Your task to perform on an android device: change alarm snooze length Image 0: 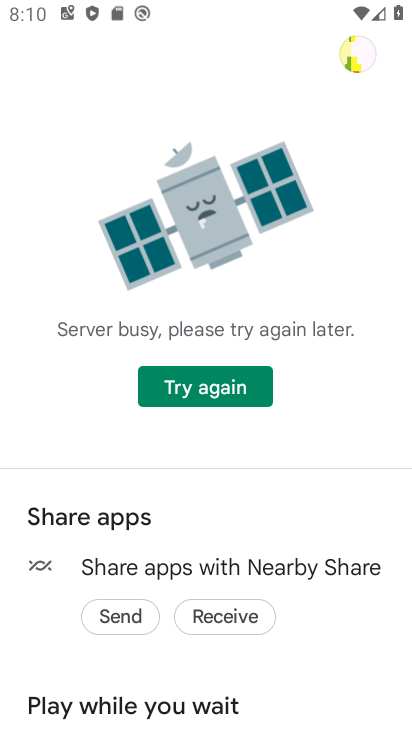
Step 0: press home button
Your task to perform on an android device: change alarm snooze length Image 1: 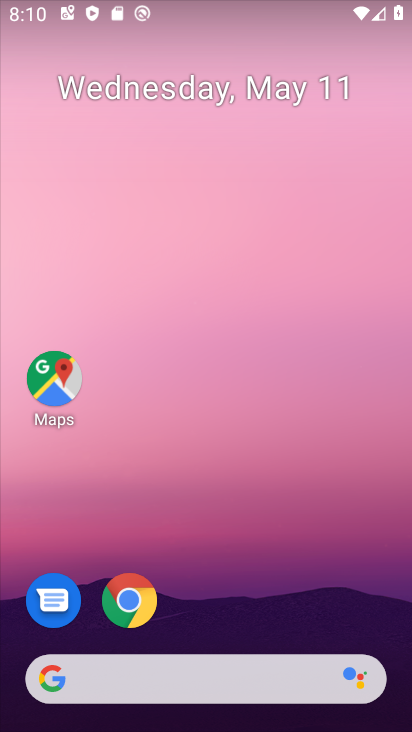
Step 1: drag from (206, 549) to (219, 23)
Your task to perform on an android device: change alarm snooze length Image 2: 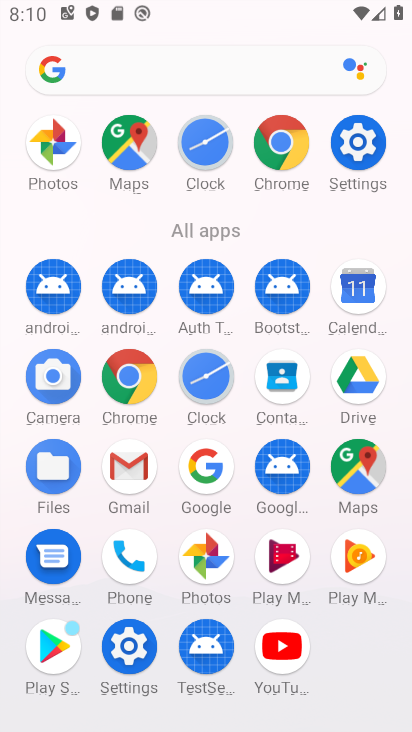
Step 2: click (205, 376)
Your task to perform on an android device: change alarm snooze length Image 3: 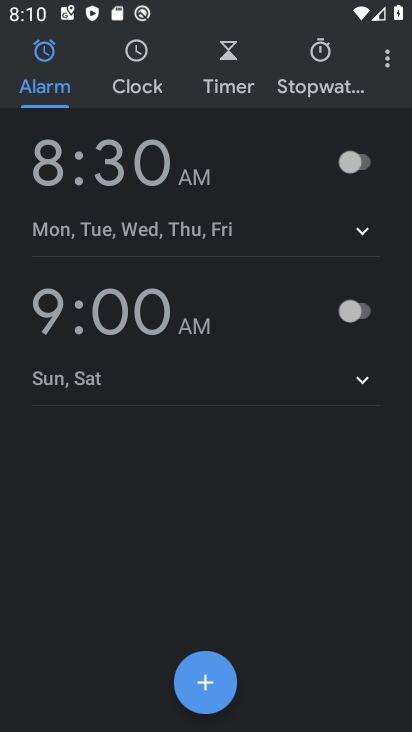
Step 3: click (387, 61)
Your task to perform on an android device: change alarm snooze length Image 4: 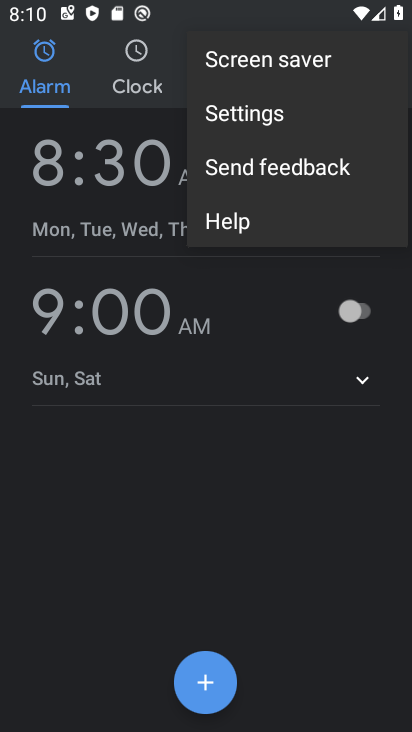
Step 4: click (287, 112)
Your task to perform on an android device: change alarm snooze length Image 5: 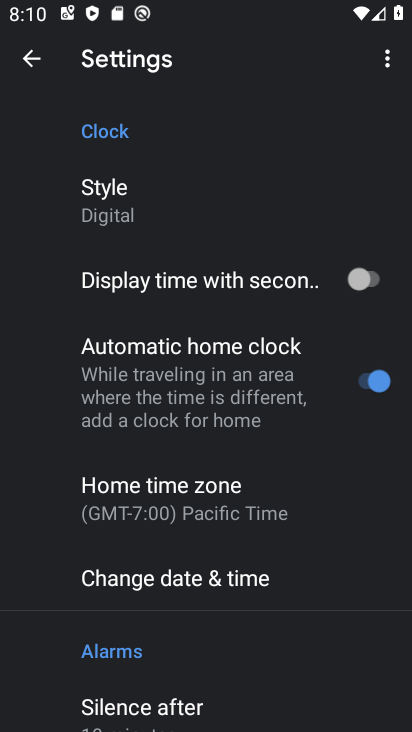
Step 5: drag from (246, 523) to (329, 379)
Your task to perform on an android device: change alarm snooze length Image 6: 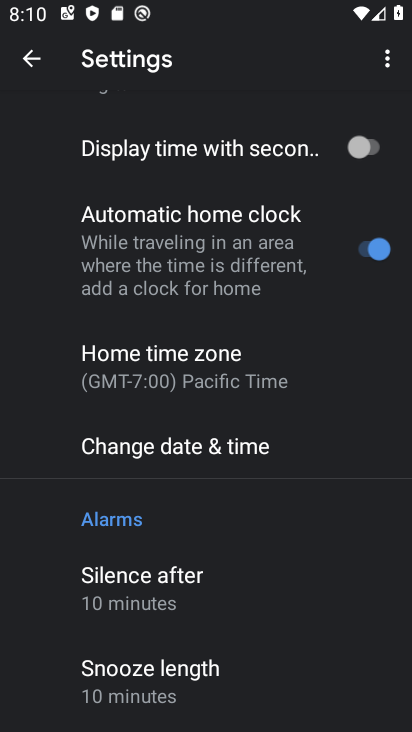
Step 6: drag from (222, 581) to (321, 431)
Your task to perform on an android device: change alarm snooze length Image 7: 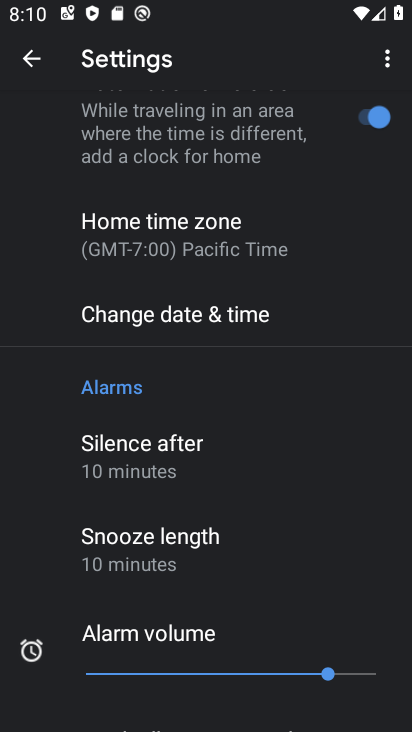
Step 7: click (149, 533)
Your task to perform on an android device: change alarm snooze length Image 8: 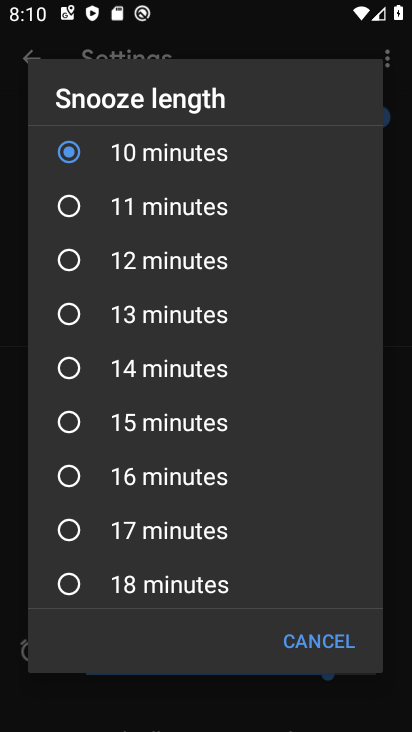
Step 8: click (149, 254)
Your task to perform on an android device: change alarm snooze length Image 9: 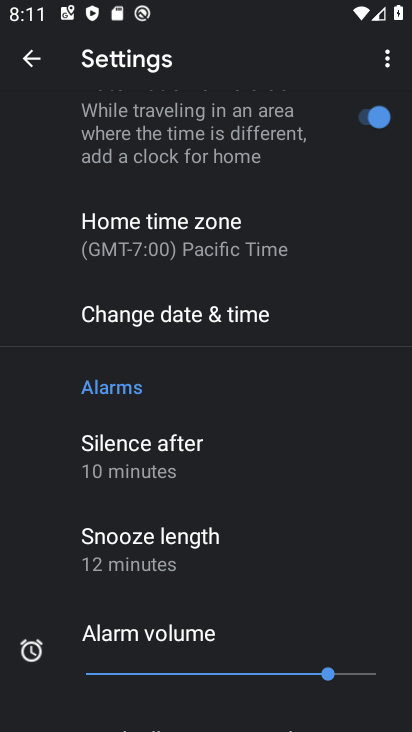
Step 9: task complete